Your task to perform on an android device: Search for pizza restaurants on Maps Image 0: 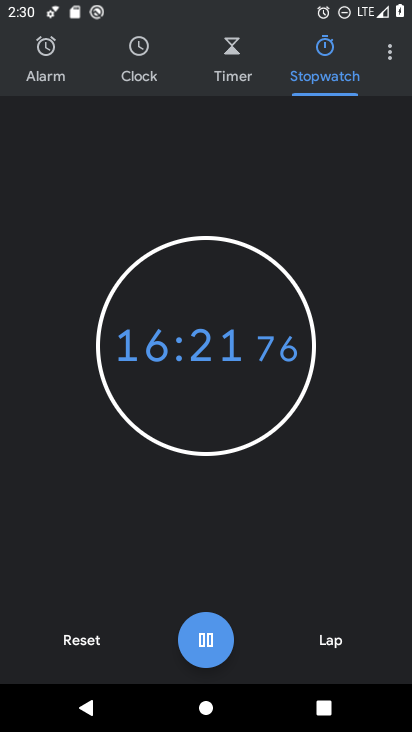
Step 0: press home button
Your task to perform on an android device: Search for pizza restaurants on Maps Image 1: 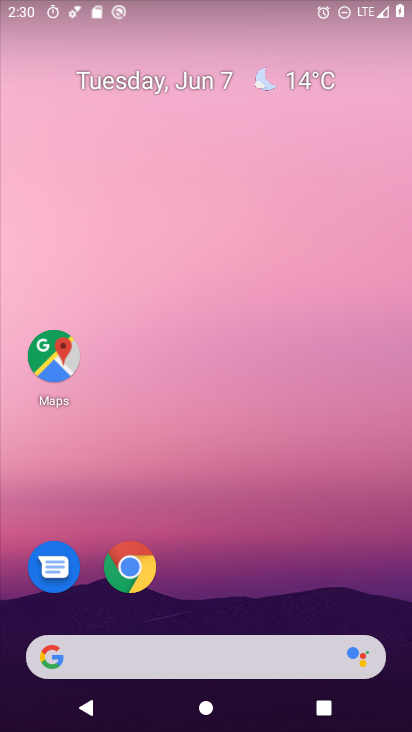
Step 1: drag from (279, 575) to (341, 45)
Your task to perform on an android device: Search for pizza restaurants on Maps Image 2: 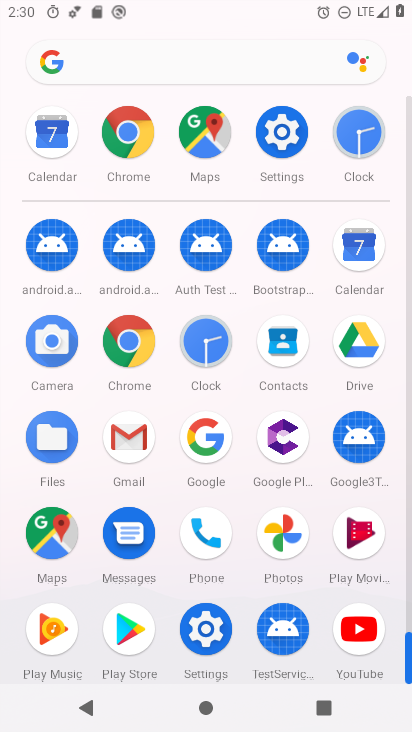
Step 2: click (202, 131)
Your task to perform on an android device: Search for pizza restaurants on Maps Image 3: 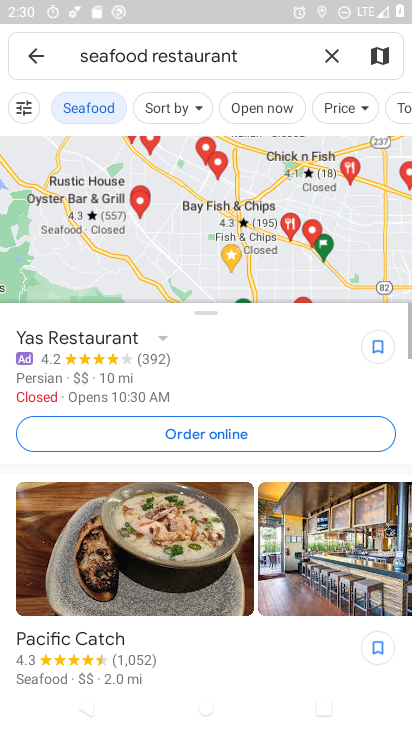
Step 3: click (338, 42)
Your task to perform on an android device: Search for pizza restaurants on Maps Image 4: 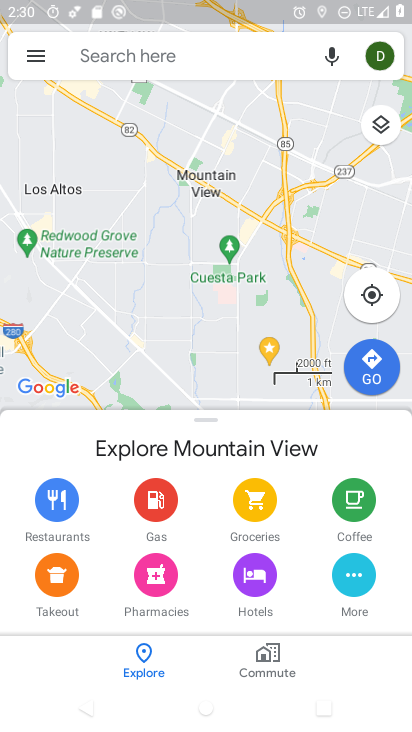
Step 4: click (239, 56)
Your task to perform on an android device: Search for pizza restaurants on Maps Image 5: 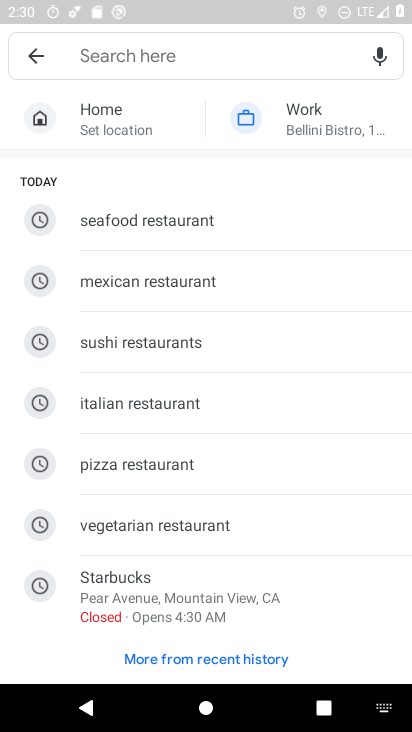
Step 5: click (184, 459)
Your task to perform on an android device: Search for pizza restaurants on Maps Image 6: 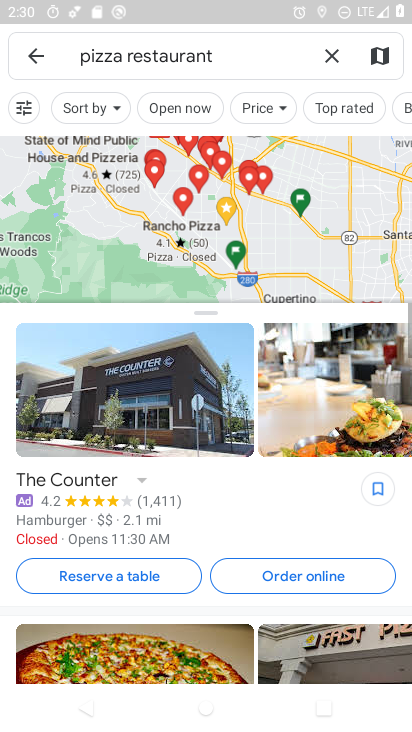
Step 6: task complete